Your task to perform on an android device: open a new tab in the chrome app Image 0: 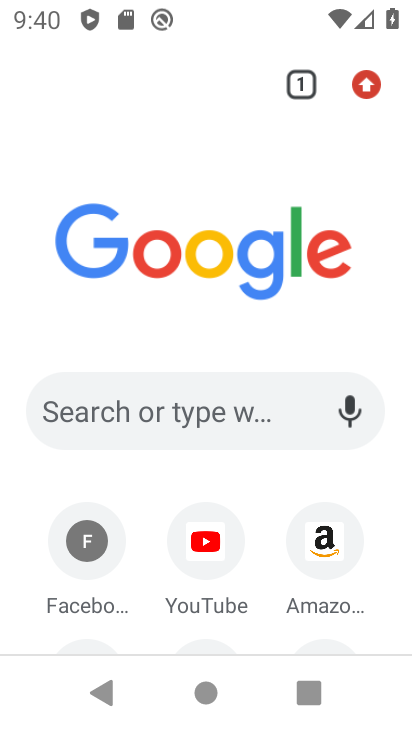
Step 0: drag from (365, 84) to (146, 288)
Your task to perform on an android device: open a new tab in the chrome app Image 1: 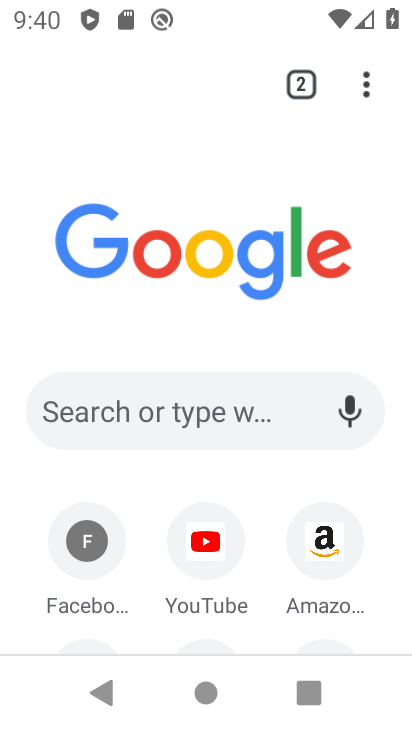
Step 1: task complete